Your task to perform on an android device: turn off wifi Image 0: 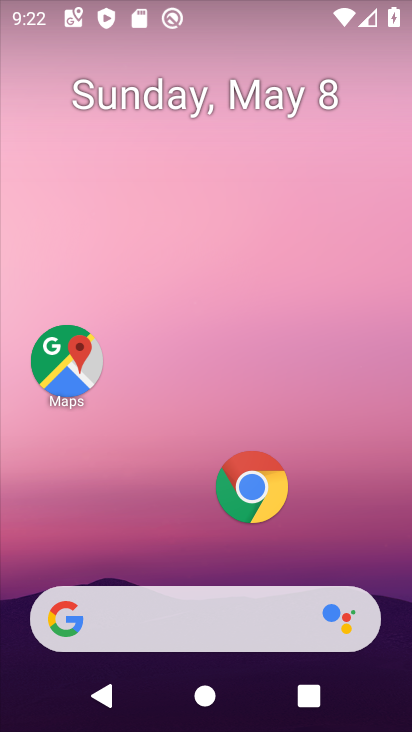
Step 0: drag from (215, 498) to (220, 9)
Your task to perform on an android device: turn off wifi Image 1: 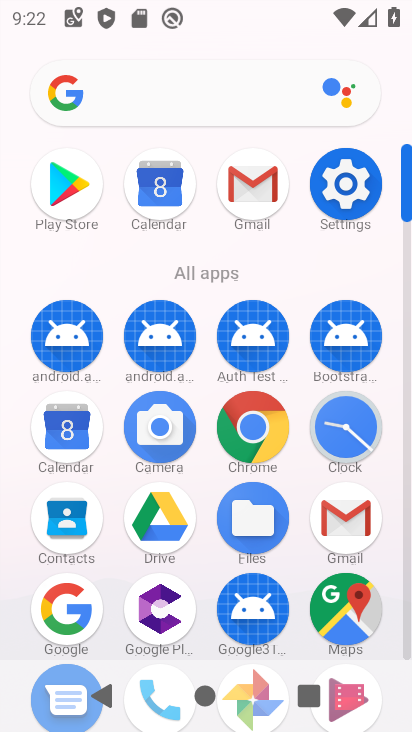
Step 1: click (347, 188)
Your task to perform on an android device: turn off wifi Image 2: 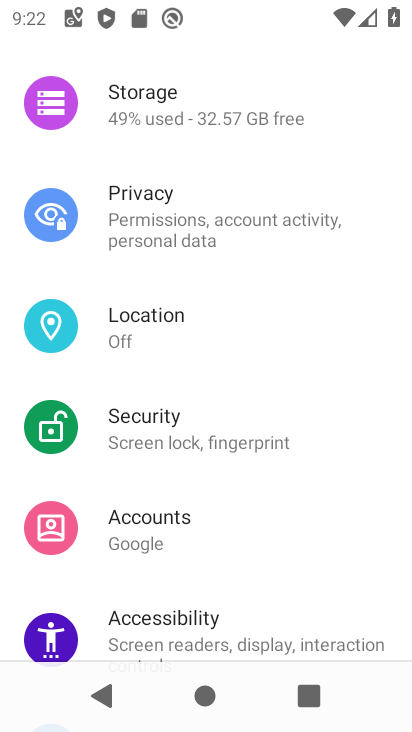
Step 2: drag from (256, 177) to (296, 626)
Your task to perform on an android device: turn off wifi Image 3: 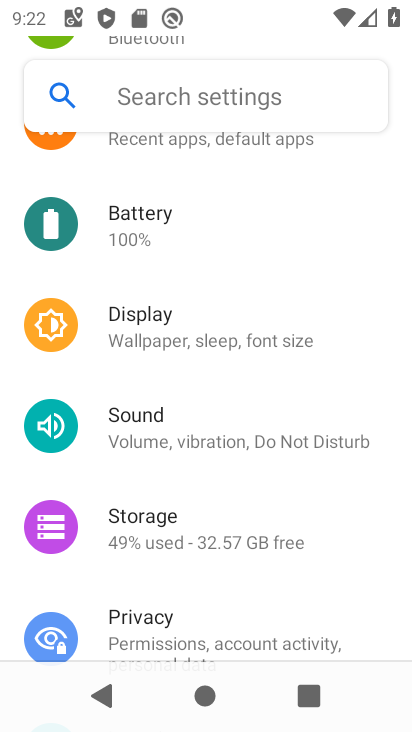
Step 3: drag from (273, 234) to (304, 562)
Your task to perform on an android device: turn off wifi Image 4: 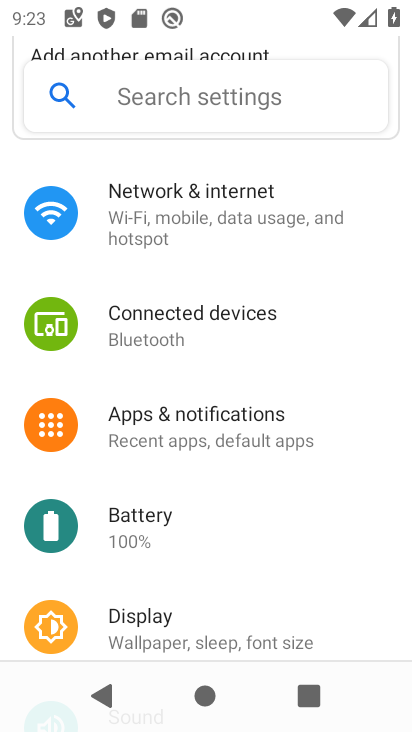
Step 4: drag from (271, 480) to (273, 569)
Your task to perform on an android device: turn off wifi Image 5: 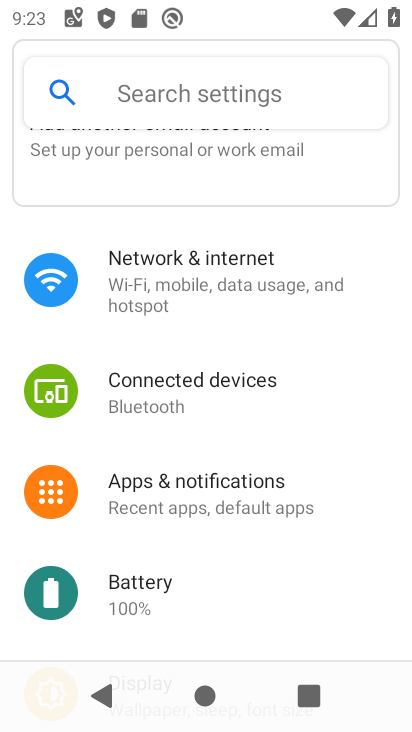
Step 5: click (235, 276)
Your task to perform on an android device: turn off wifi Image 6: 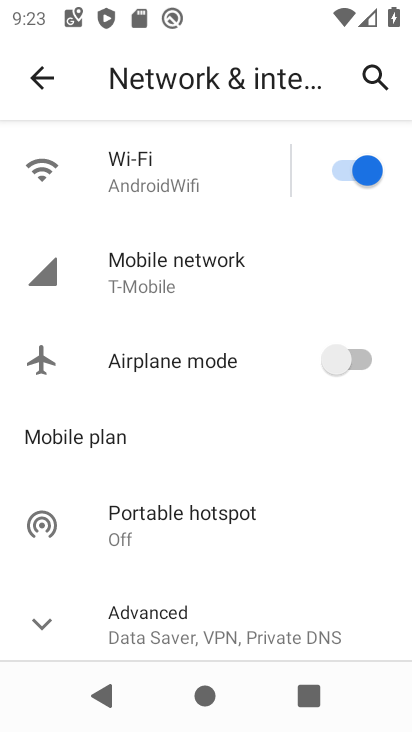
Step 6: click (341, 159)
Your task to perform on an android device: turn off wifi Image 7: 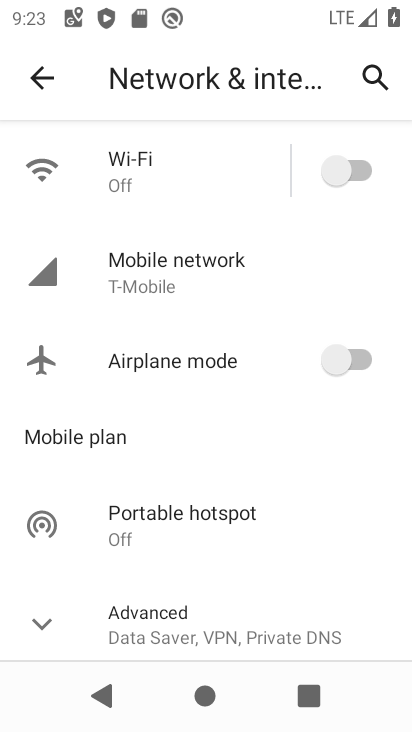
Step 7: task complete